Your task to perform on an android device: Check the news Image 0: 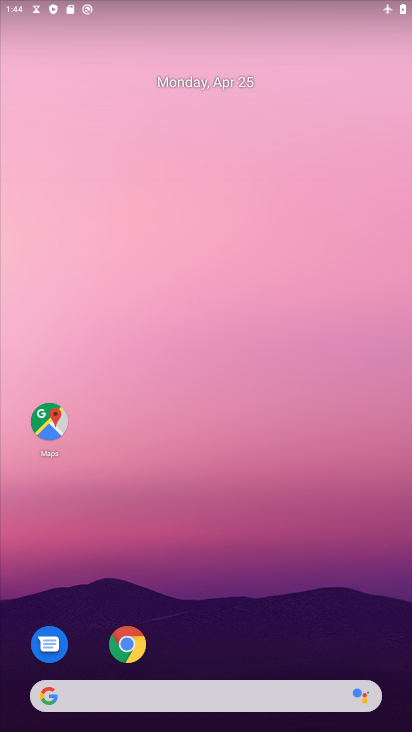
Step 0: drag from (16, 210) to (391, 268)
Your task to perform on an android device: Check the news Image 1: 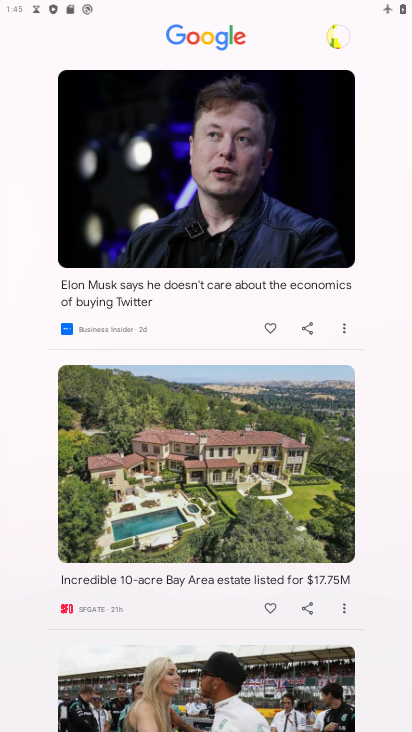
Step 1: task complete